Your task to perform on an android device: change notification settings in the gmail app Image 0: 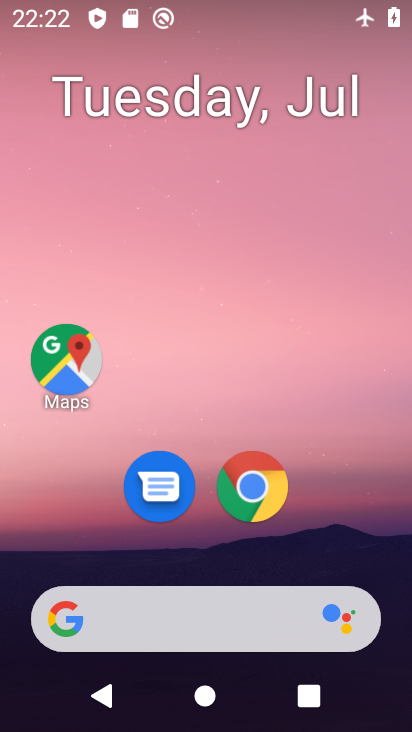
Step 0: press home button
Your task to perform on an android device: change notification settings in the gmail app Image 1: 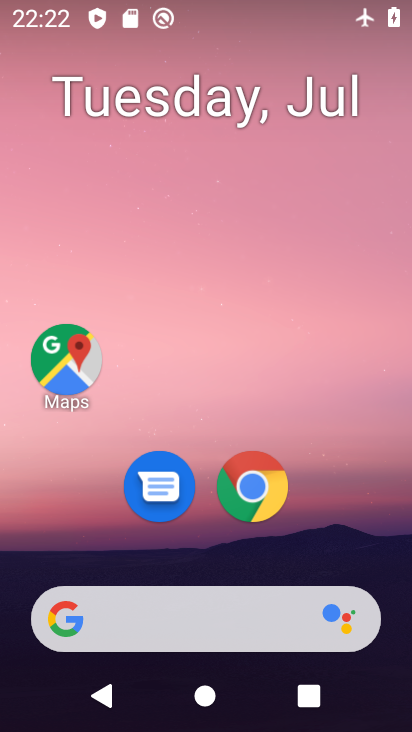
Step 1: drag from (336, 519) to (347, 188)
Your task to perform on an android device: change notification settings in the gmail app Image 2: 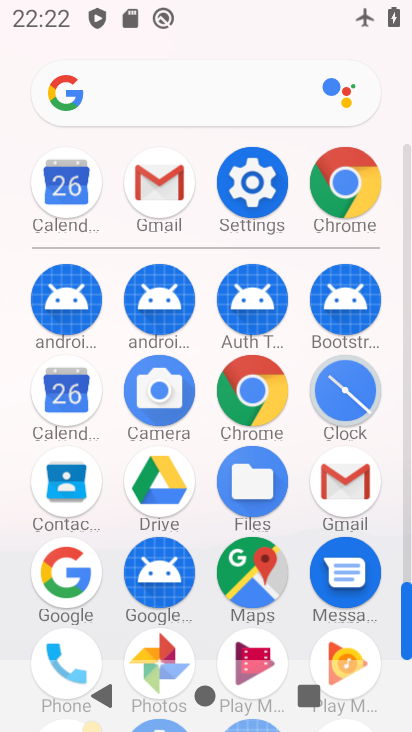
Step 2: click (348, 479)
Your task to perform on an android device: change notification settings in the gmail app Image 3: 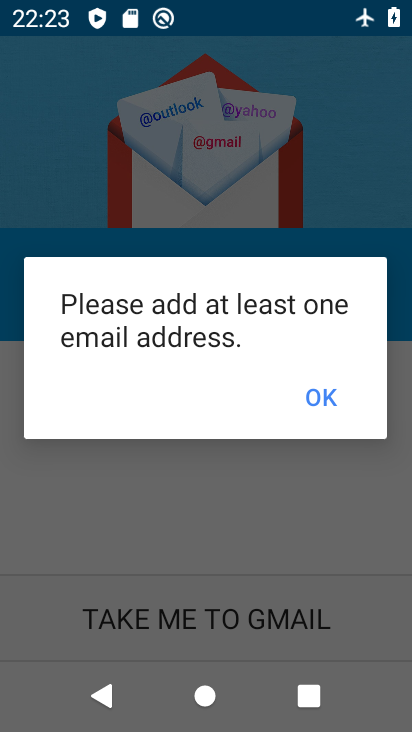
Step 3: task complete